Your task to perform on an android device: turn off sleep mode Image 0: 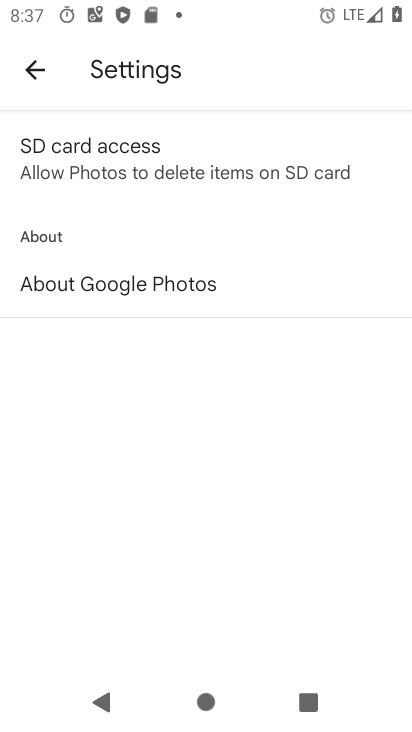
Step 0: press home button
Your task to perform on an android device: turn off sleep mode Image 1: 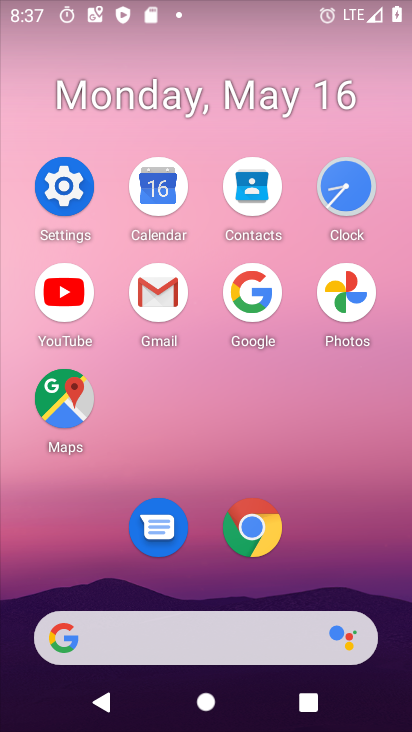
Step 1: click (53, 181)
Your task to perform on an android device: turn off sleep mode Image 2: 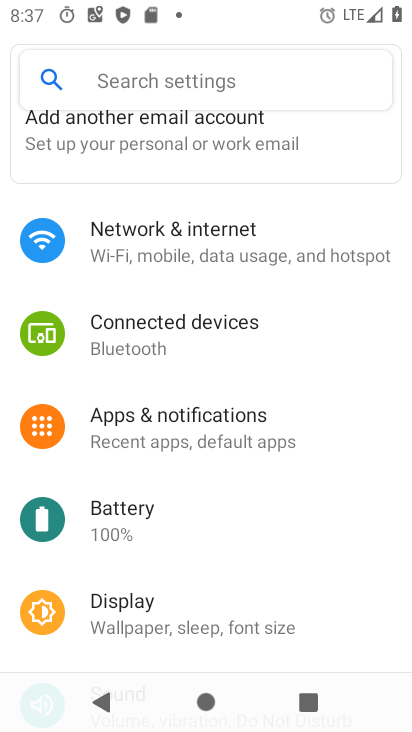
Step 2: click (187, 610)
Your task to perform on an android device: turn off sleep mode Image 3: 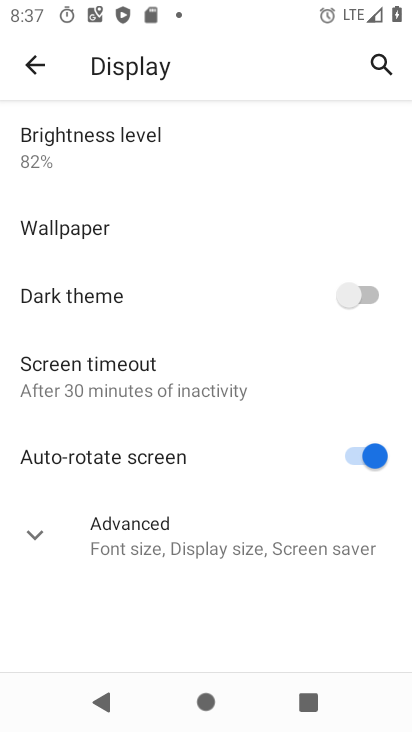
Step 3: click (155, 398)
Your task to perform on an android device: turn off sleep mode Image 4: 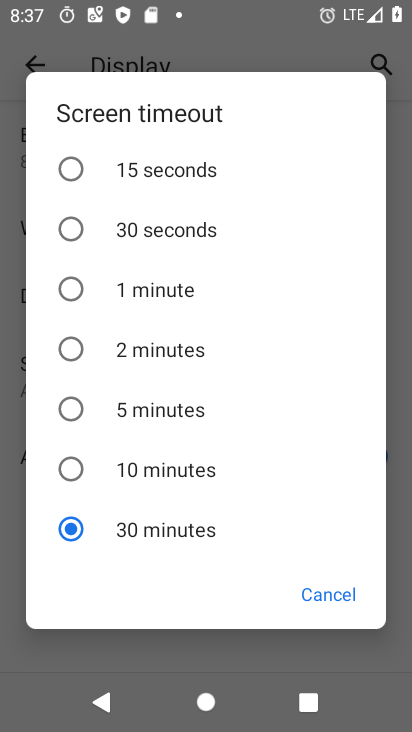
Step 4: task complete